Your task to perform on an android device: Open Yahoo.com Image 0: 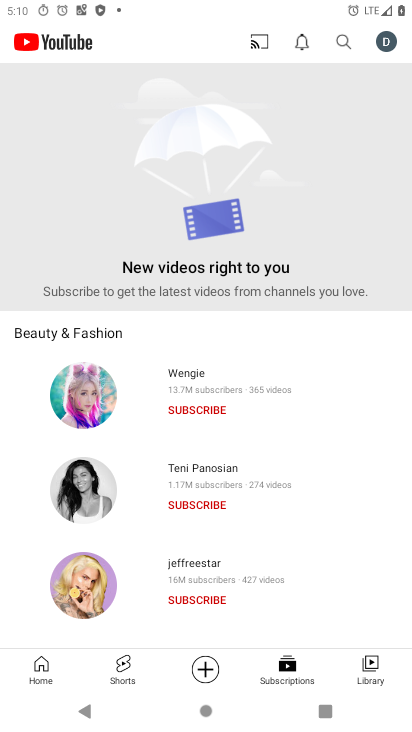
Step 0: press home button
Your task to perform on an android device: Open Yahoo.com Image 1: 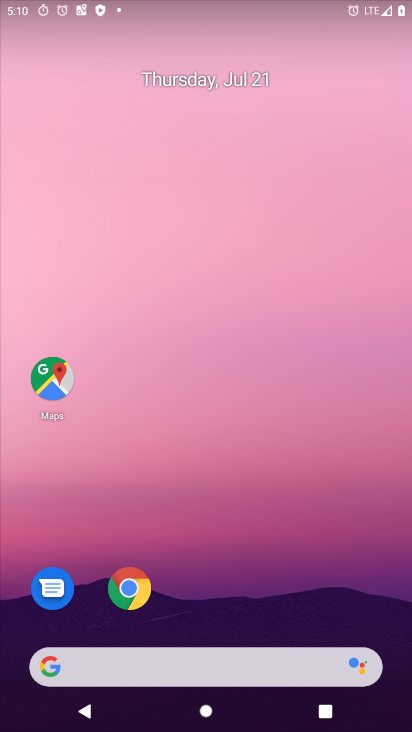
Step 1: drag from (269, 592) to (263, 107)
Your task to perform on an android device: Open Yahoo.com Image 2: 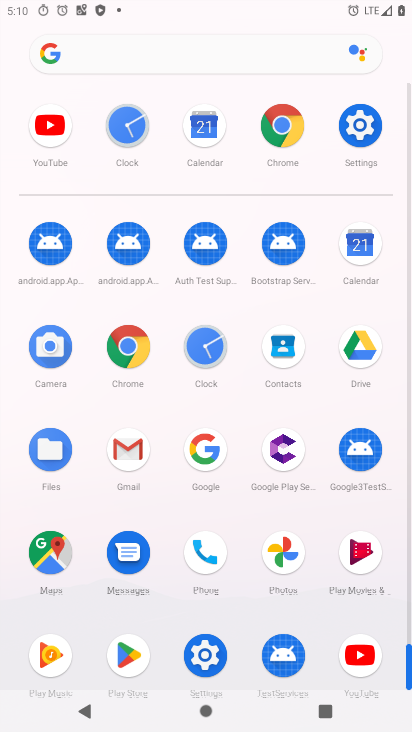
Step 2: click (132, 333)
Your task to perform on an android device: Open Yahoo.com Image 3: 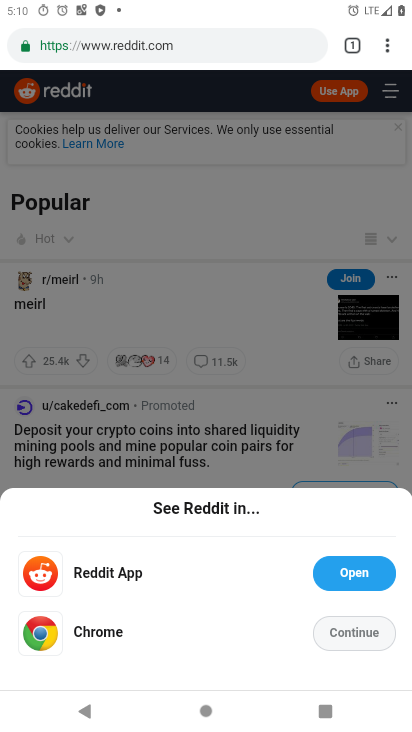
Step 3: click (241, 45)
Your task to perform on an android device: Open Yahoo.com Image 4: 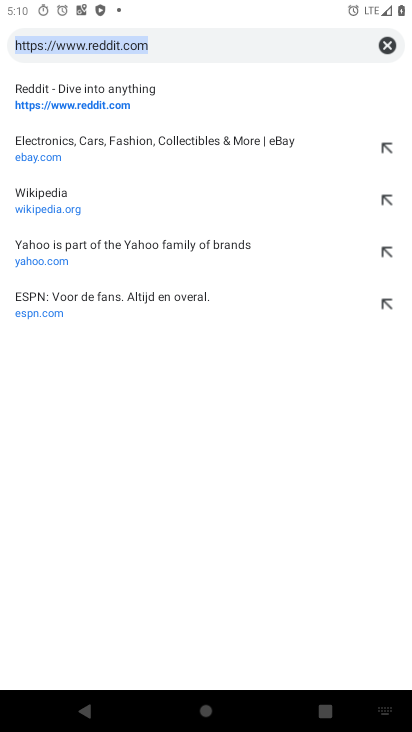
Step 4: click (377, 44)
Your task to perform on an android device: Open Yahoo.com Image 5: 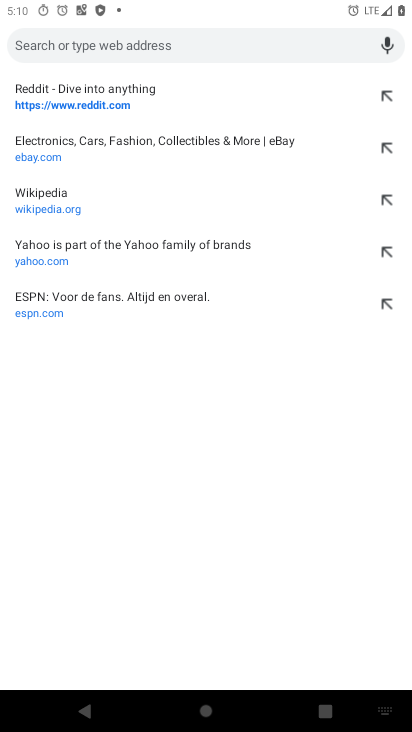
Step 5: type " Yahoo.com"
Your task to perform on an android device: Open Yahoo.com Image 6: 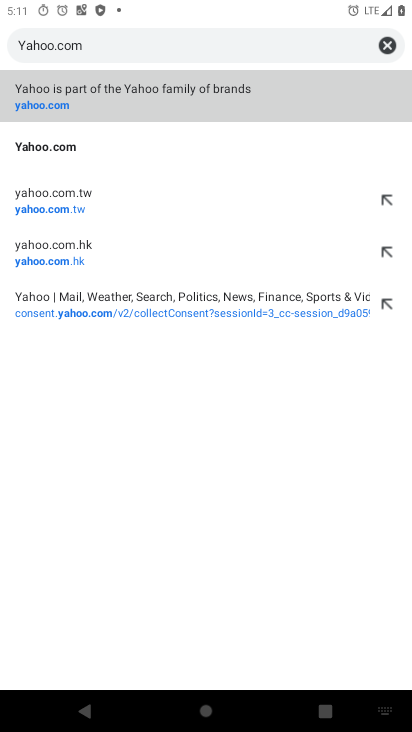
Step 6: click (65, 100)
Your task to perform on an android device: Open Yahoo.com Image 7: 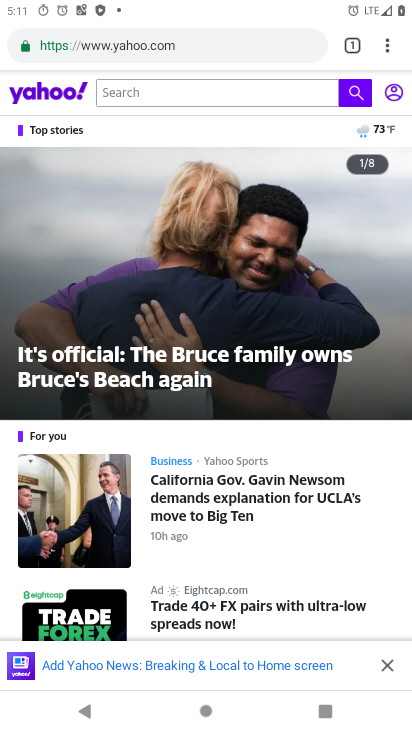
Step 7: task complete